Your task to perform on an android device: Empty the shopping cart on ebay.com. Add "logitech g pro" to the cart on ebay.com, then select checkout. Image 0: 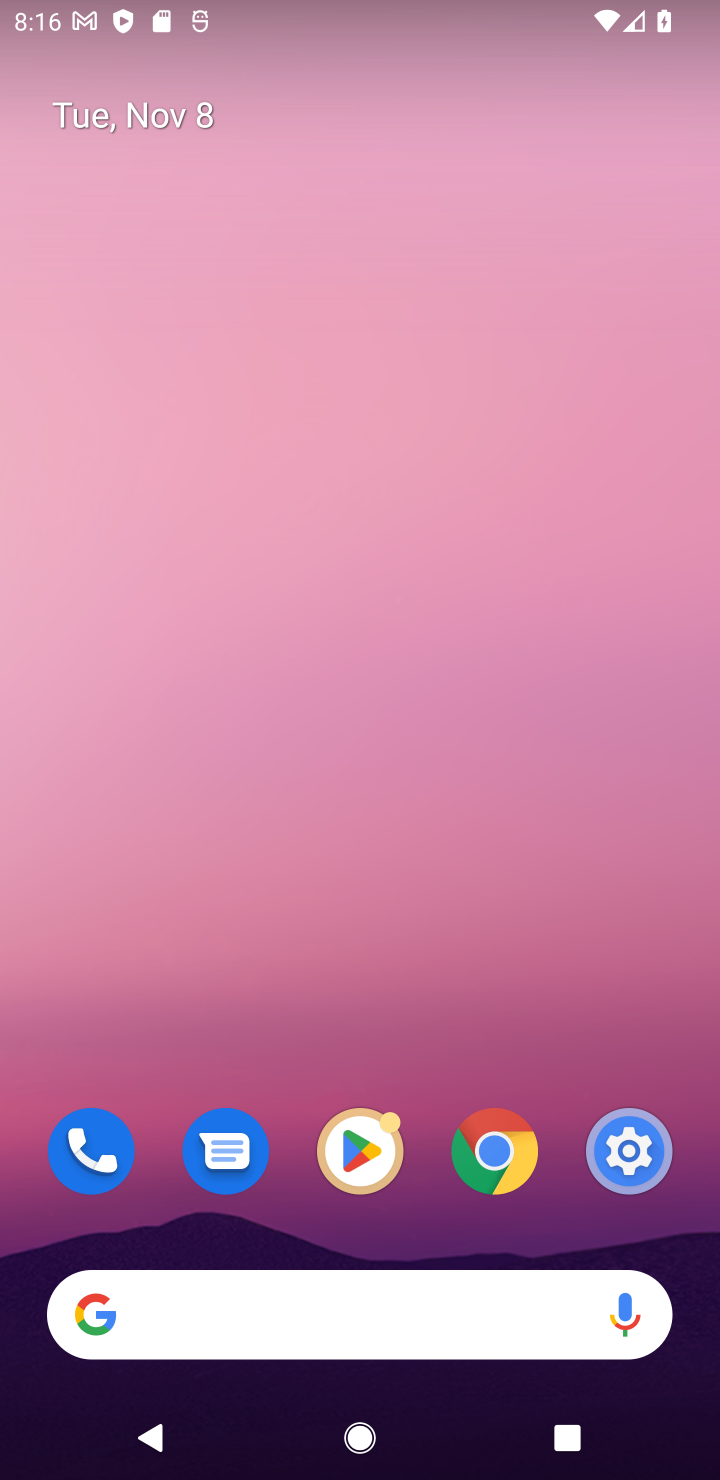
Step 0: click (201, 1302)
Your task to perform on an android device: Empty the shopping cart on ebay.com. Add "logitech g pro" to the cart on ebay.com, then select checkout. Image 1: 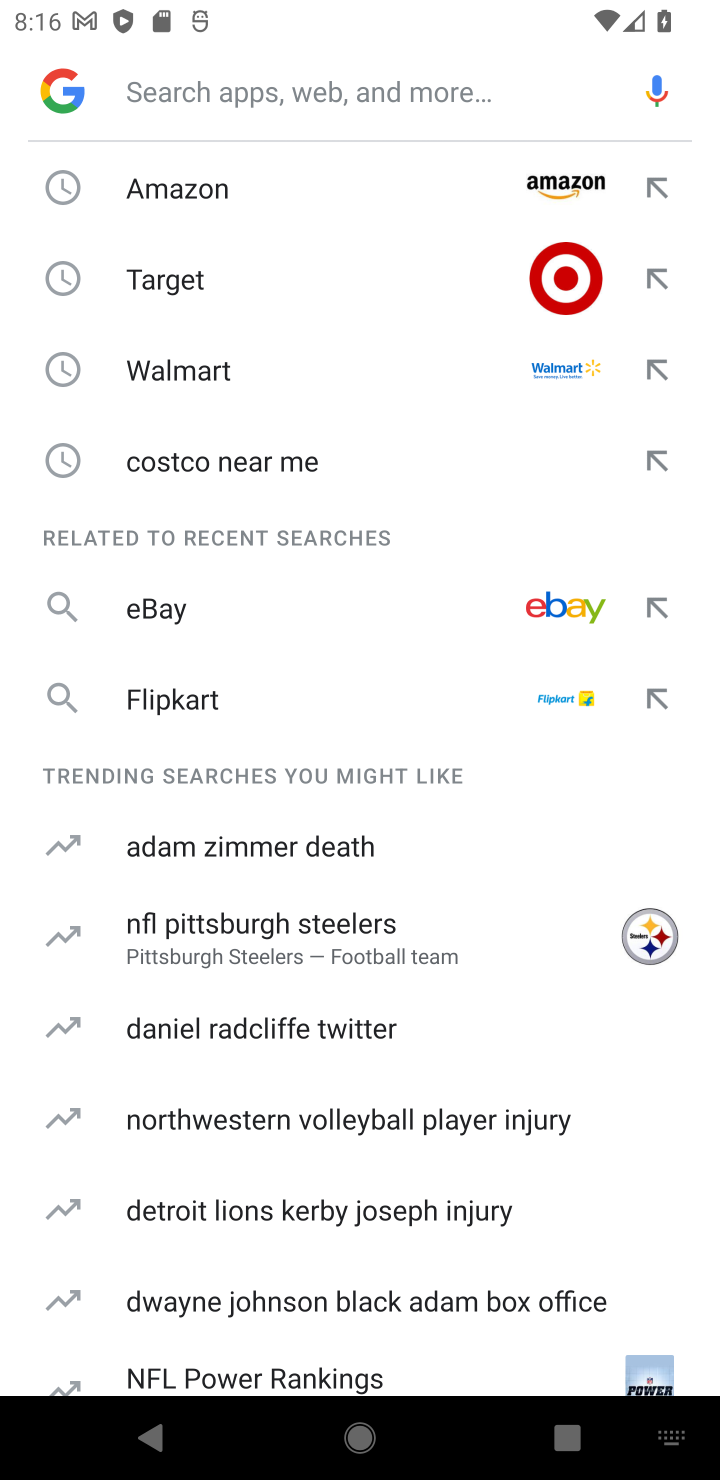
Step 1: type "ebay.com"
Your task to perform on an android device: Empty the shopping cart on ebay.com. Add "logitech g pro" to the cart on ebay.com, then select checkout. Image 2: 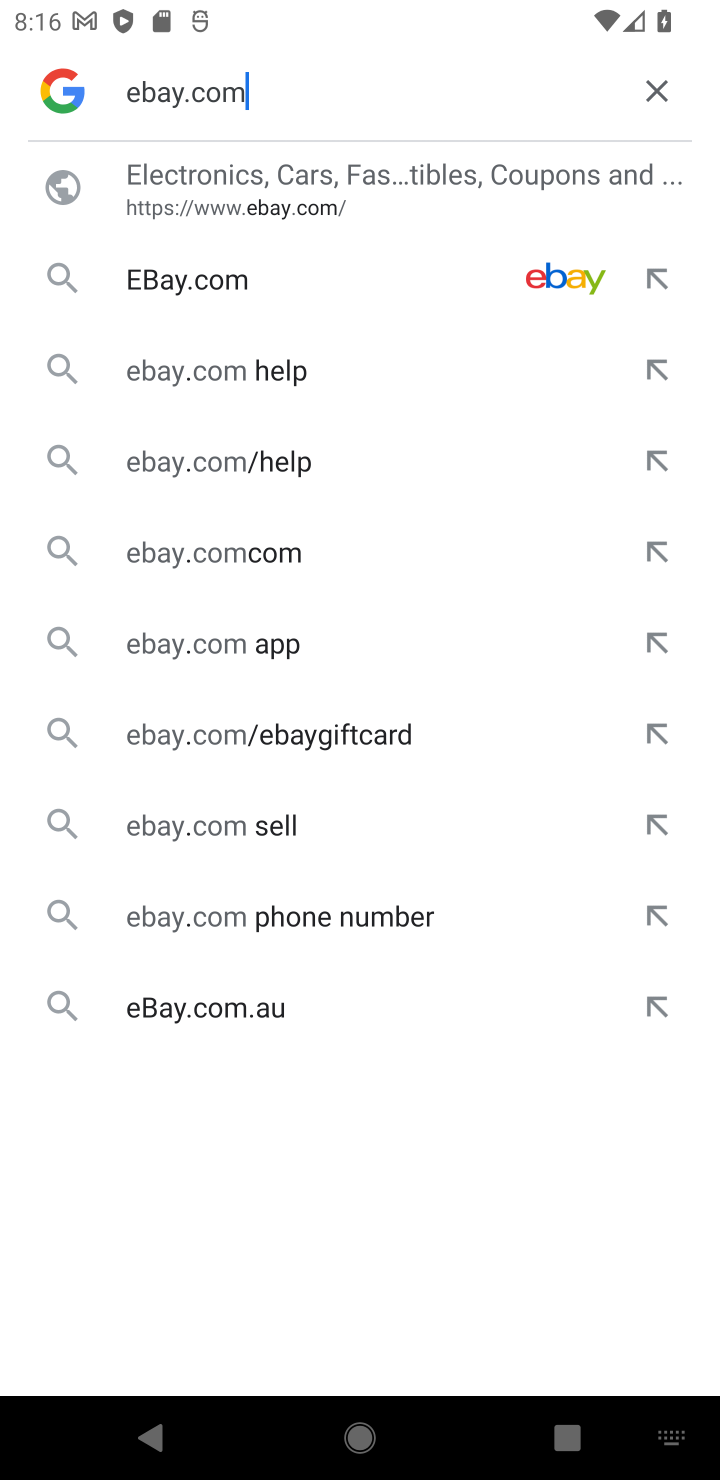
Step 2: click (253, 273)
Your task to perform on an android device: Empty the shopping cart on ebay.com. Add "logitech g pro" to the cart on ebay.com, then select checkout. Image 3: 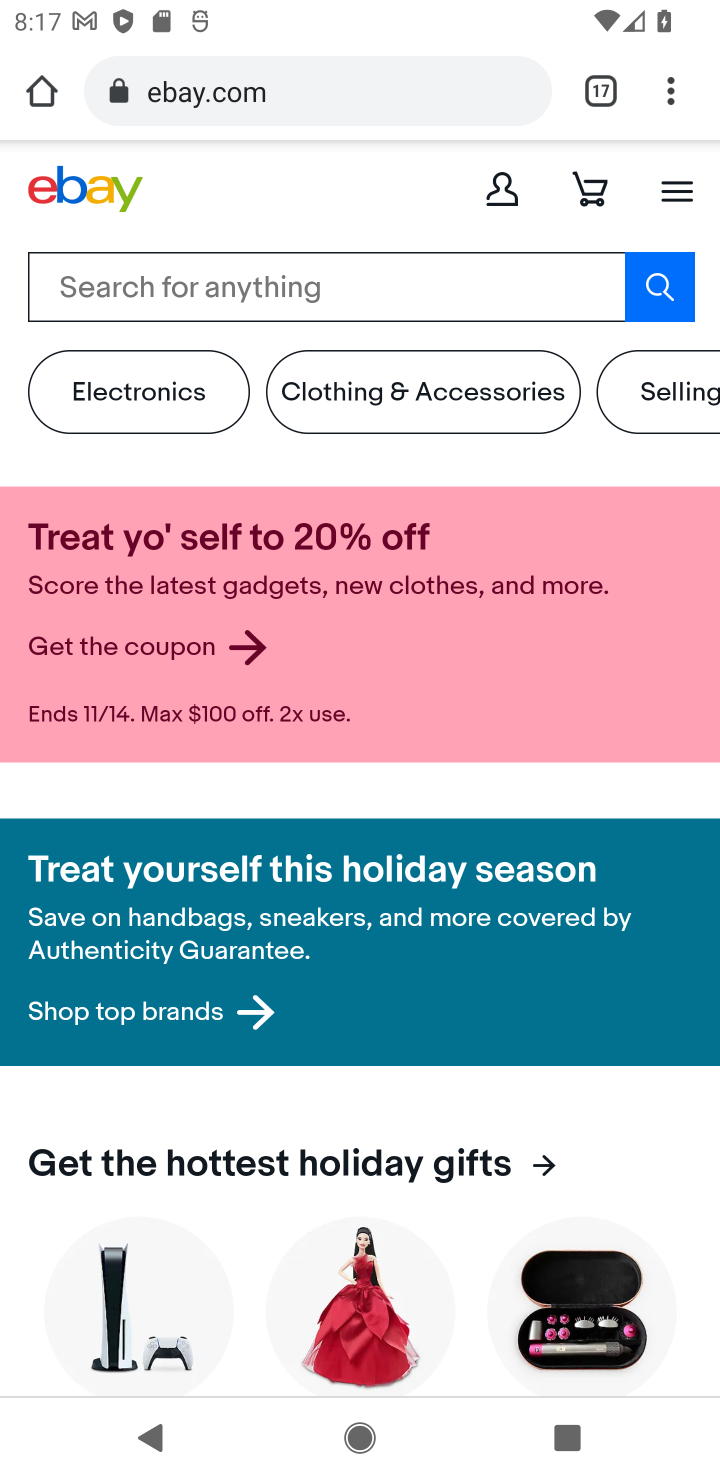
Step 3: click (405, 291)
Your task to perform on an android device: Empty the shopping cart on ebay.com. Add "logitech g pro" to the cart on ebay.com, then select checkout. Image 4: 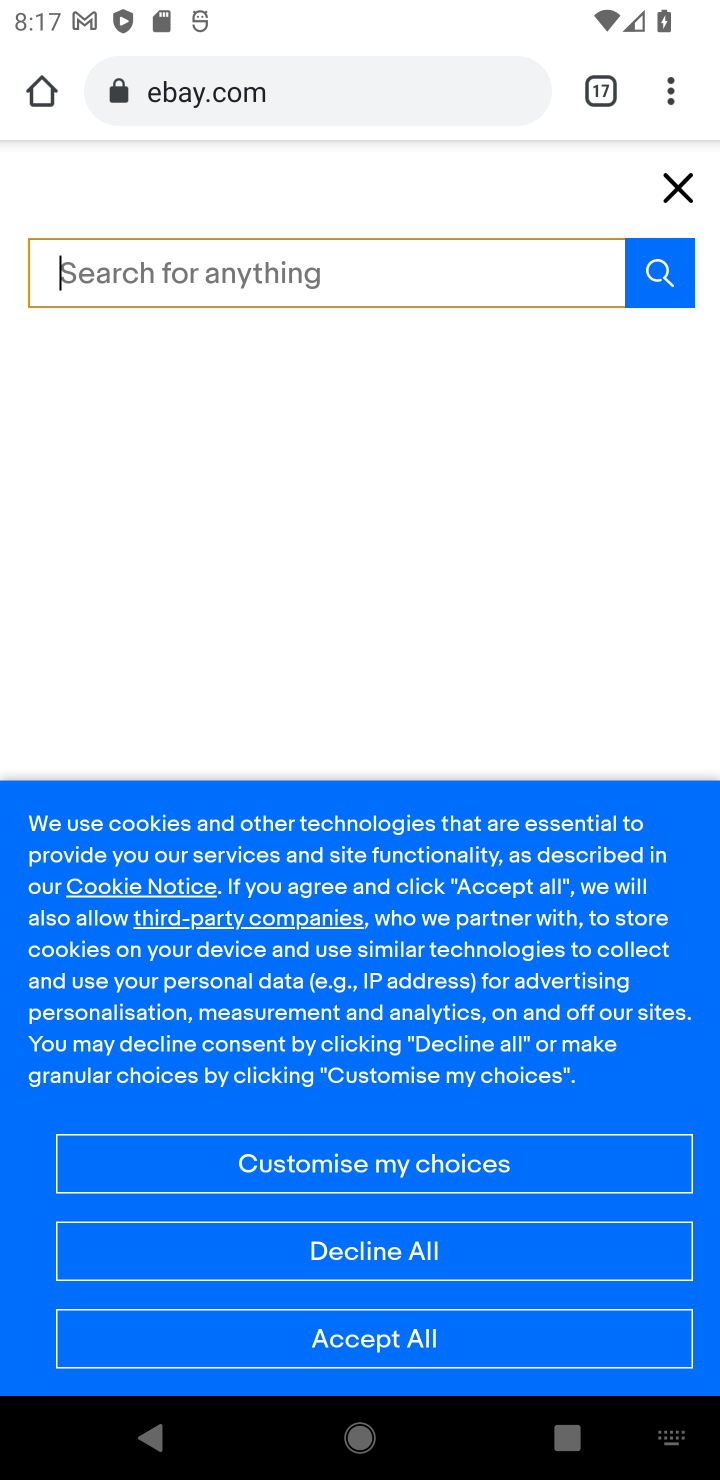
Step 4: type "logitech gpro"
Your task to perform on an android device: Empty the shopping cart on ebay.com. Add "logitech g pro" to the cart on ebay.com, then select checkout. Image 5: 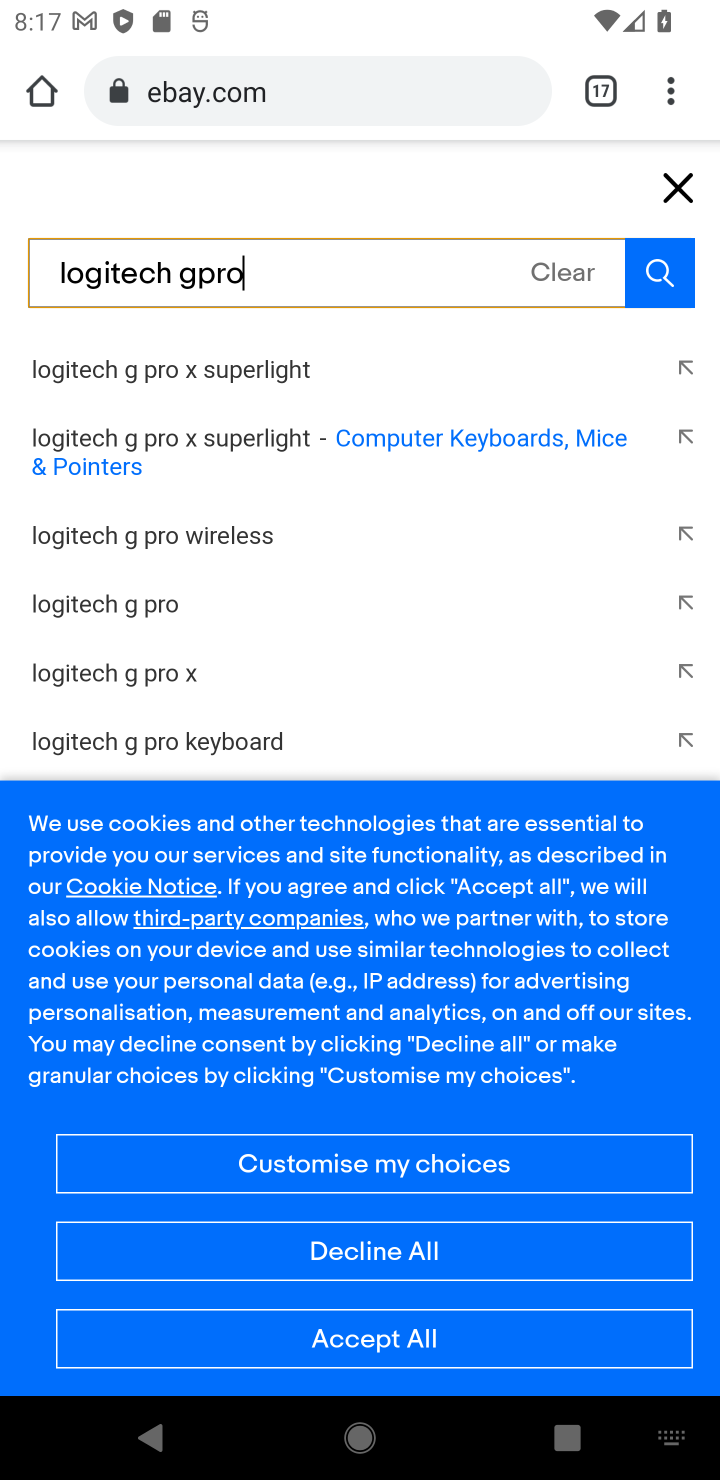
Step 5: click (263, 509)
Your task to perform on an android device: Empty the shopping cart on ebay.com. Add "logitech g pro" to the cart on ebay.com, then select checkout. Image 6: 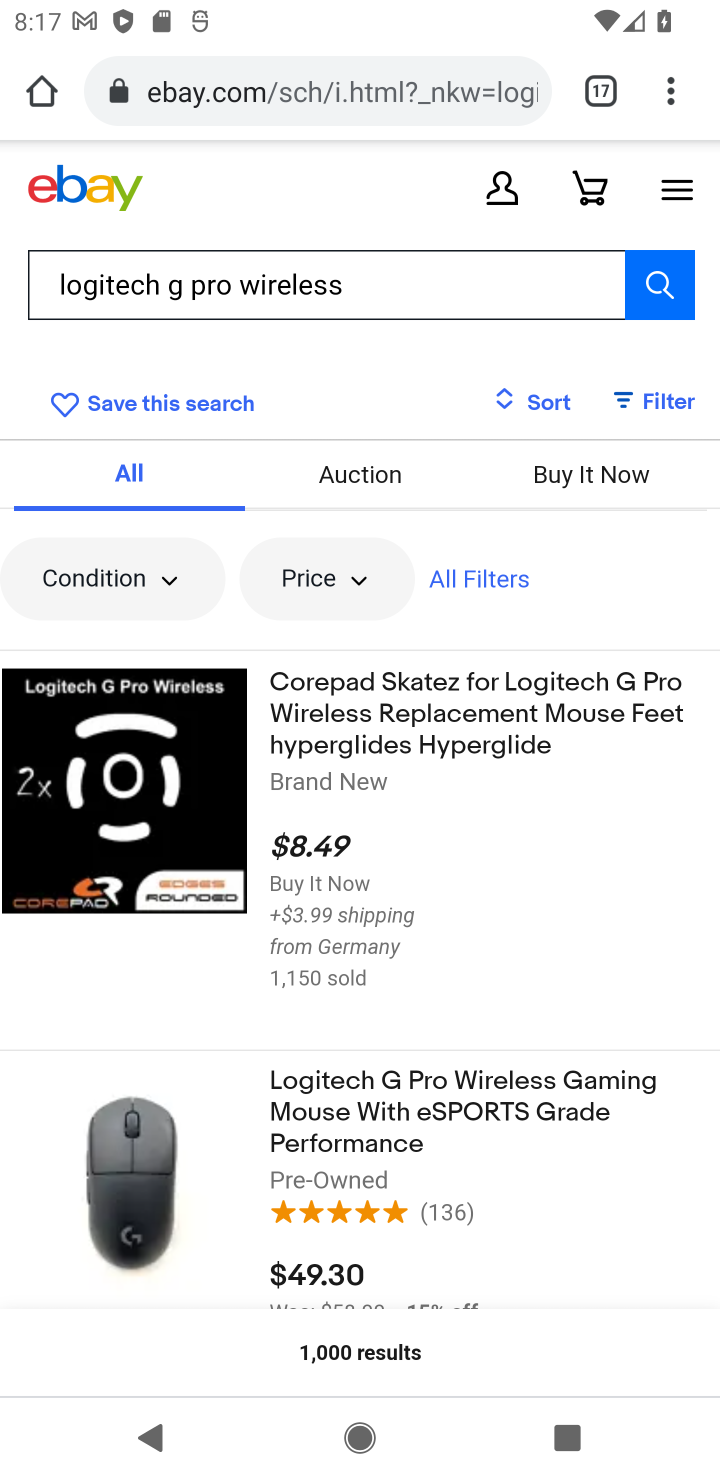
Step 6: task complete